Your task to perform on an android device: Open Google Chrome and click the shortcut for Amazon.com Image 0: 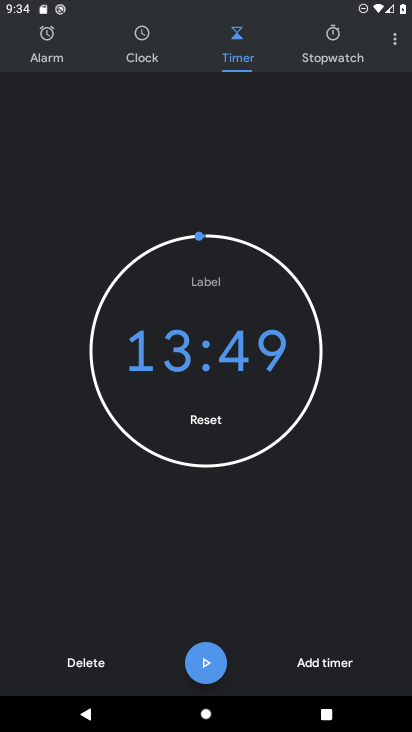
Step 0: press home button
Your task to perform on an android device: Open Google Chrome and click the shortcut for Amazon.com Image 1: 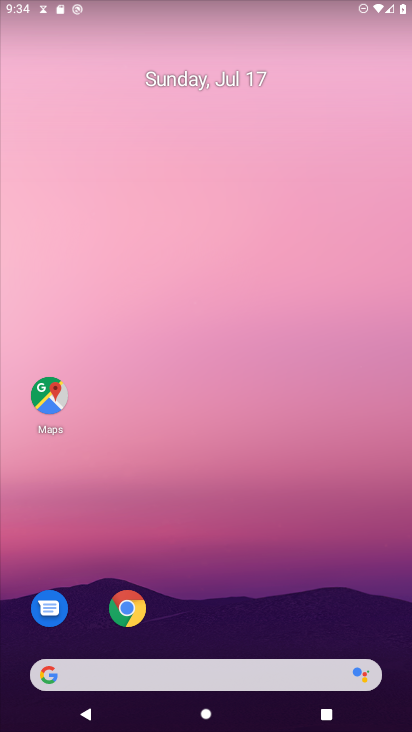
Step 1: click (128, 610)
Your task to perform on an android device: Open Google Chrome and click the shortcut for Amazon.com Image 2: 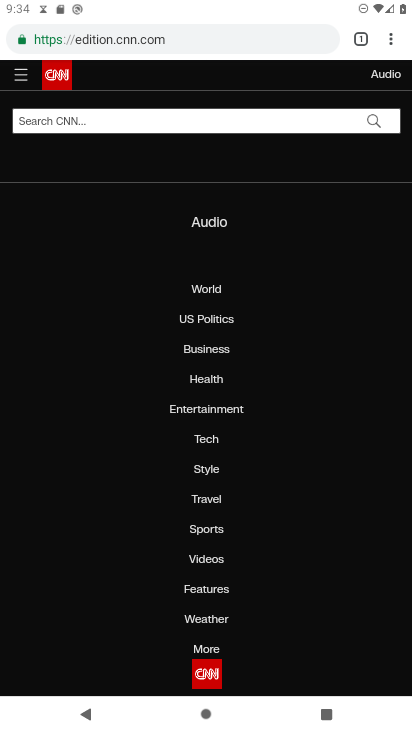
Step 2: click (284, 46)
Your task to perform on an android device: Open Google Chrome and click the shortcut for Amazon.com Image 3: 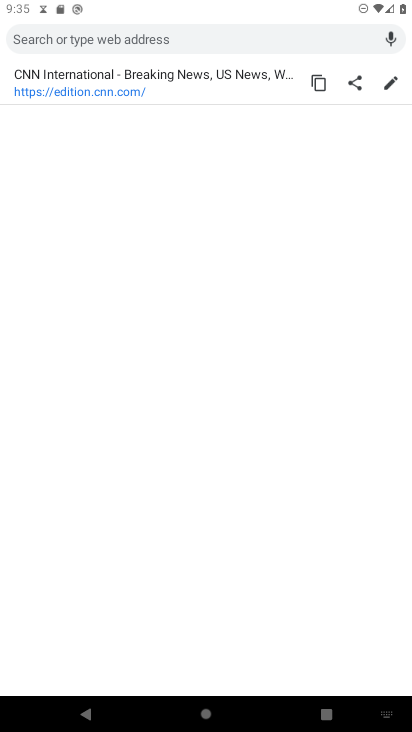
Step 3: type "Amazon.com"
Your task to perform on an android device: Open Google Chrome and click the shortcut for Amazon.com Image 4: 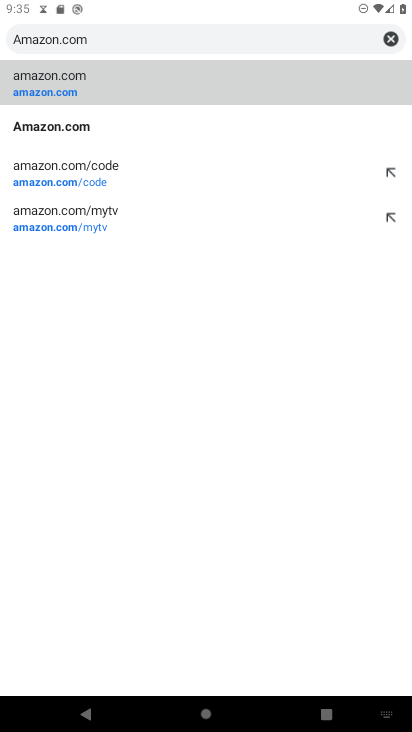
Step 4: click (78, 131)
Your task to perform on an android device: Open Google Chrome and click the shortcut for Amazon.com Image 5: 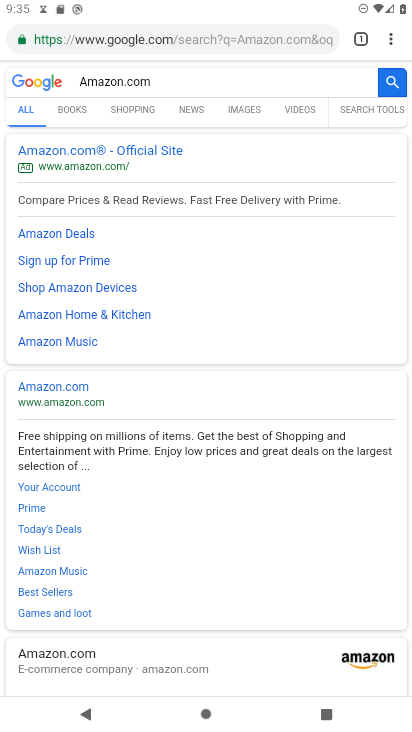
Step 5: click (61, 388)
Your task to perform on an android device: Open Google Chrome and click the shortcut for Amazon.com Image 6: 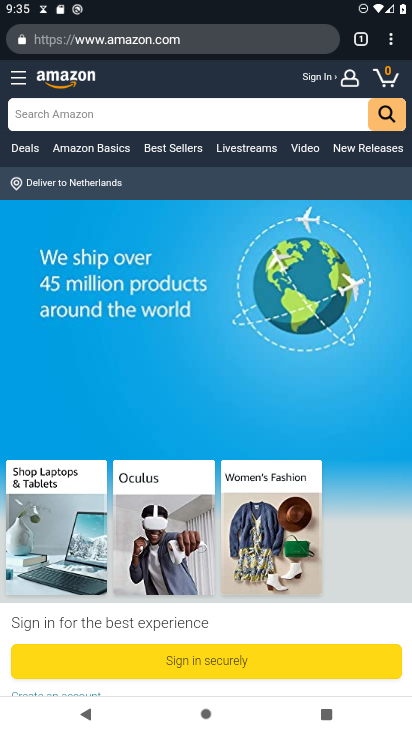
Step 6: click (390, 41)
Your task to perform on an android device: Open Google Chrome and click the shortcut for Amazon.com Image 7: 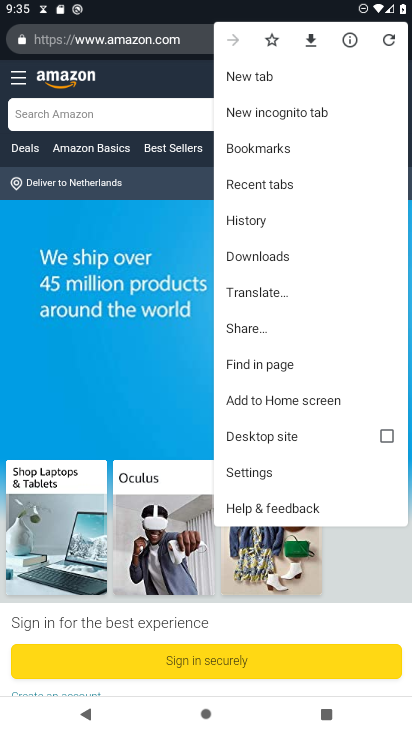
Step 7: click (266, 401)
Your task to perform on an android device: Open Google Chrome and click the shortcut for Amazon.com Image 8: 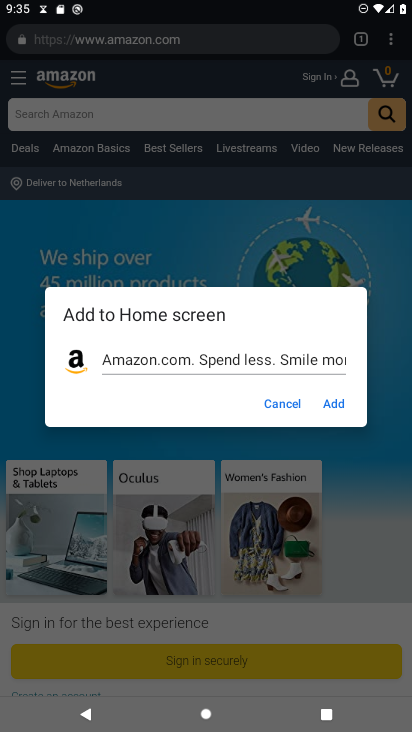
Step 8: click (332, 405)
Your task to perform on an android device: Open Google Chrome and click the shortcut for Amazon.com Image 9: 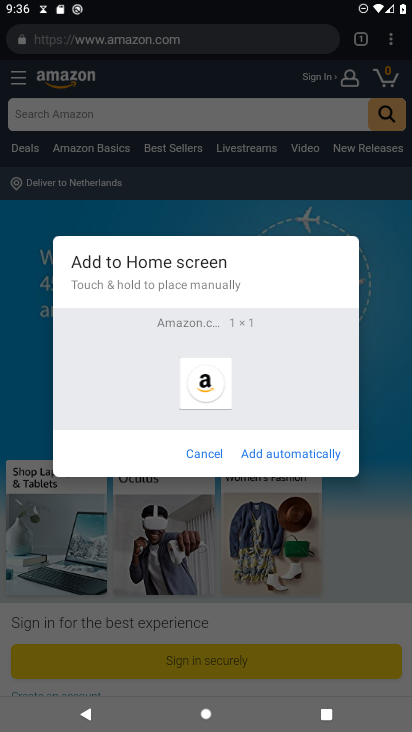
Step 9: click (323, 455)
Your task to perform on an android device: Open Google Chrome and click the shortcut for Amazon.com Image 10: 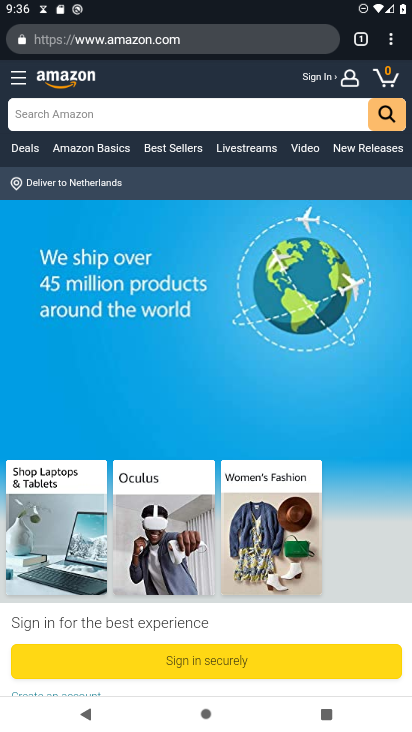
Step 10: task complete